Your task to perform on an android device: open app "Google Keep" Image 0: 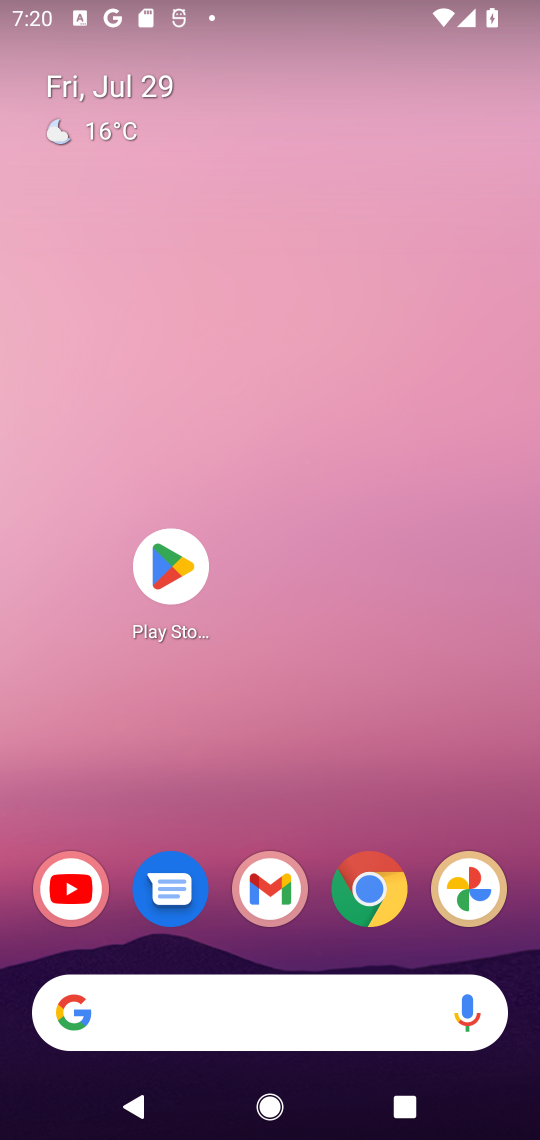
Step 0: press home button
Your task to perform on an android device: open app "Google Keep" Image 1: 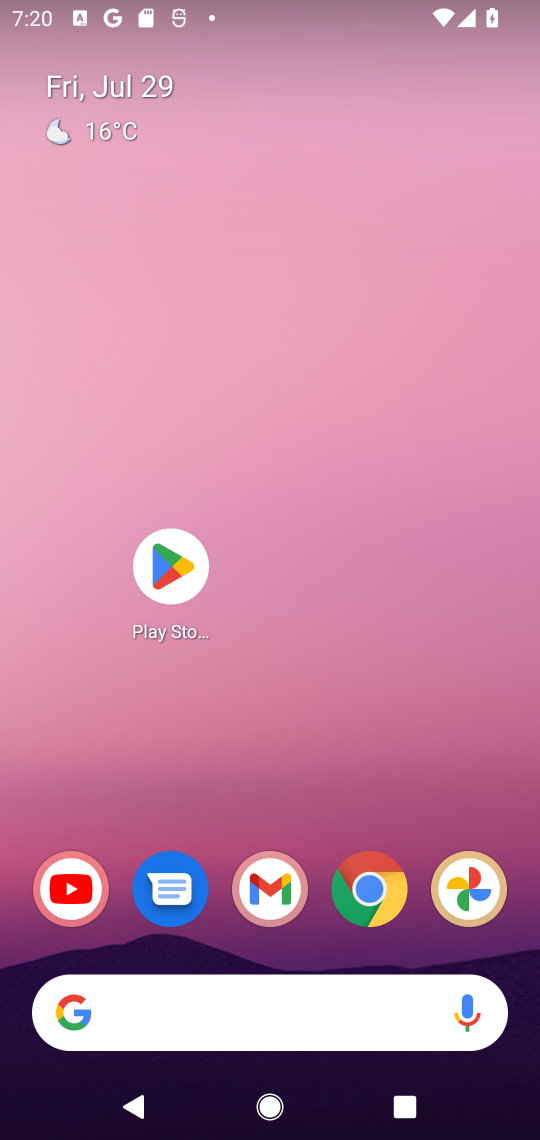
Step 1: click (175, 556)
Your task to perform on an android device: open app "Google Keep" Image 2: 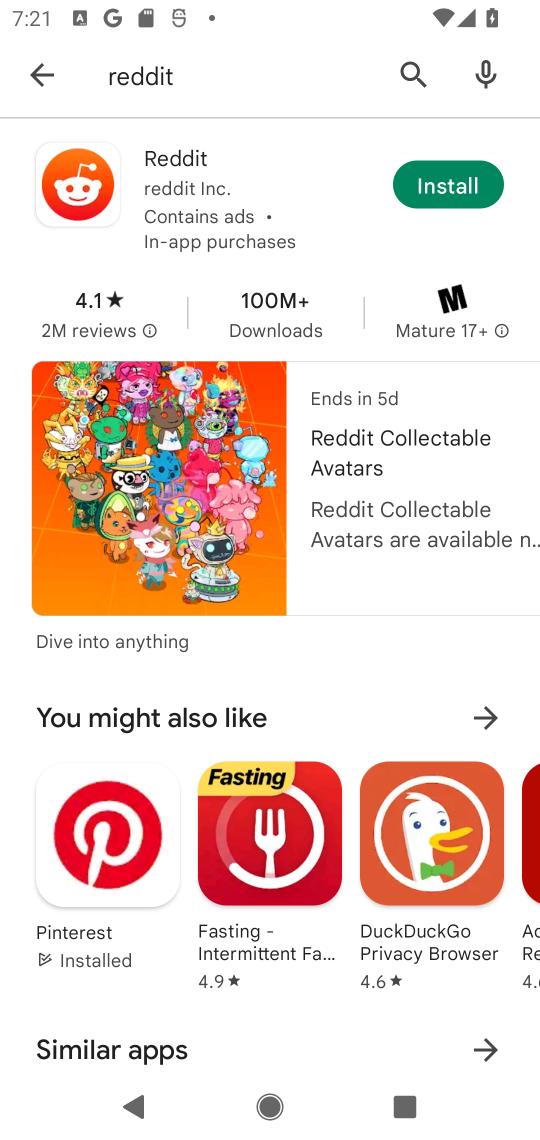
Step 2: click (408, 63)
Your task to perform on an android device: open app "Google Keep" Image 3: 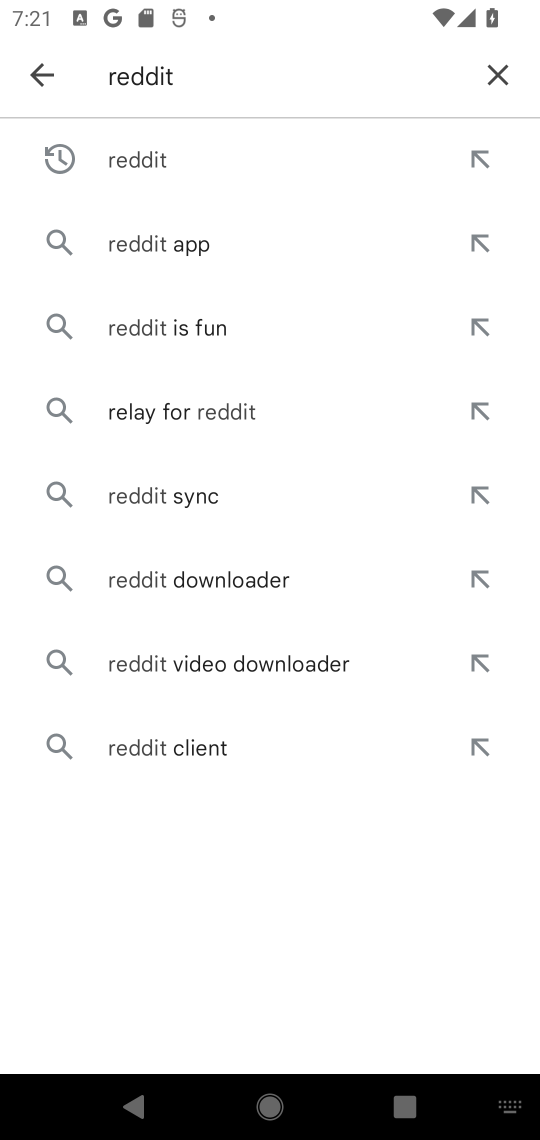
Step 3: click (493, 67)
Your task to perform on an android device: open app "Google Keep" Image 4: 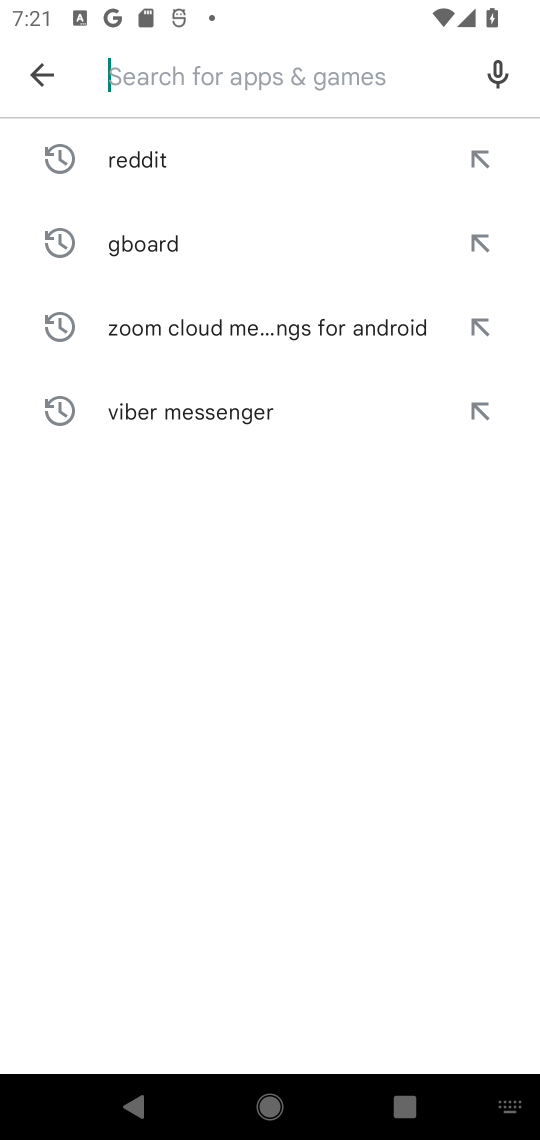
Step 4: type "Google Keep"
Your task to perform on an android device: open app "Google Keep" Image 5: 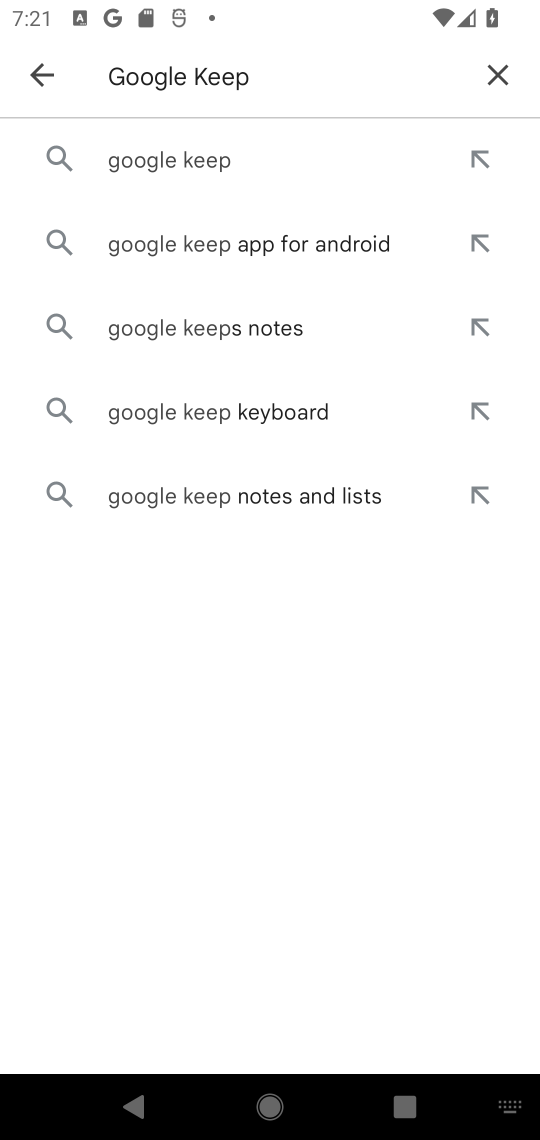
Step 5: click (184, 168)
Your task to perform on an android device: open app "Google Keep" Image 6: 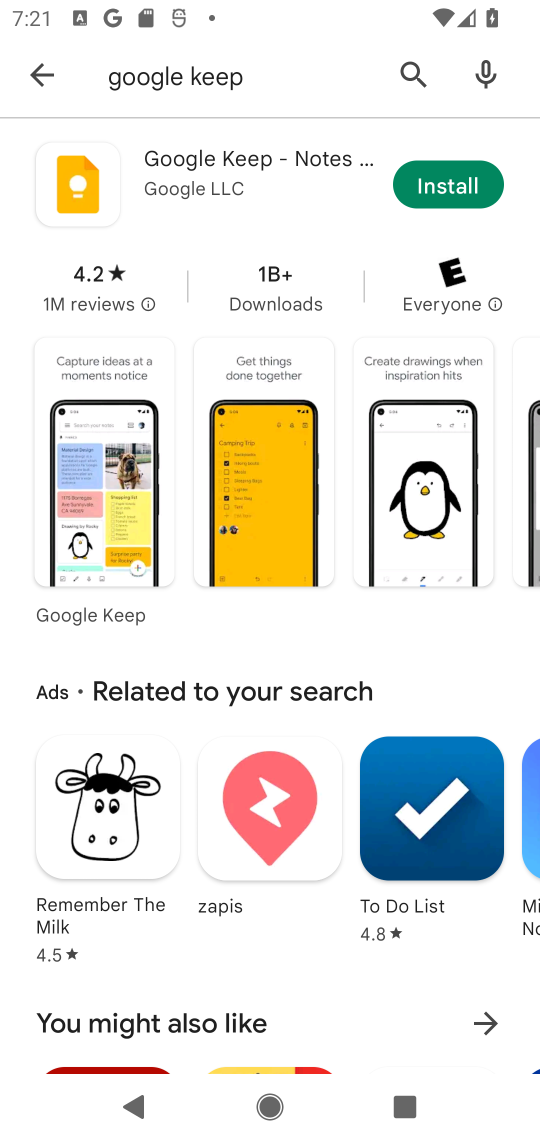
Step 6: task complete